Your task to perform on an android device: Go to network settings Image 0: 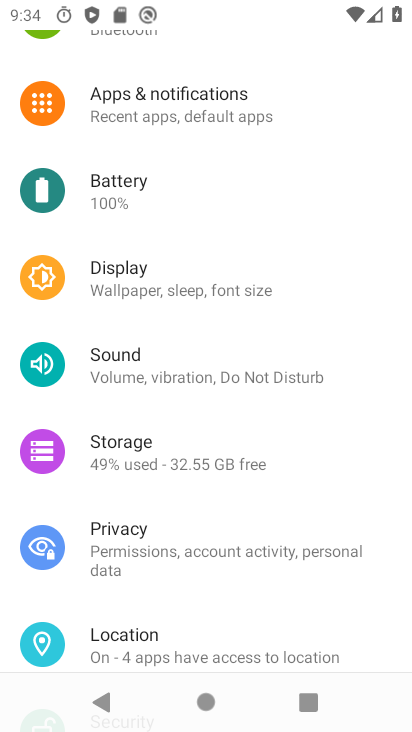
Step 0: drag from (203, 446) to (208, 640)
Your task to perform on an android device: Go to network settings Image 1: 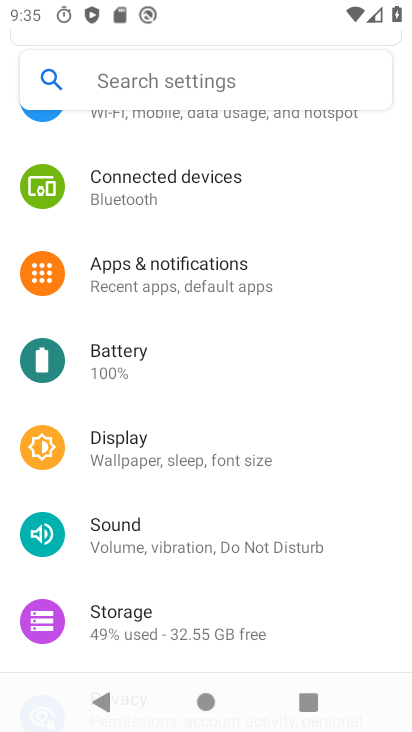
Step 1: drag from (225, 279) to (198, 671)
Your task to perform on an android device: Go to network settings Image 2: 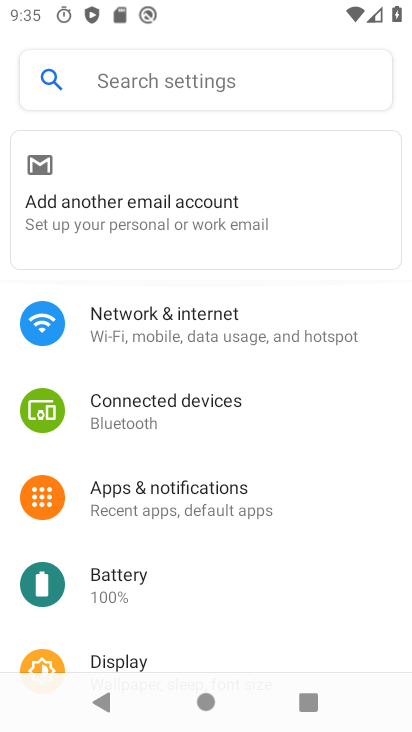
Step 2: drag from (167, 434) to (167, 685)
Your task to perform on an android device: Go to network settings Image 3: 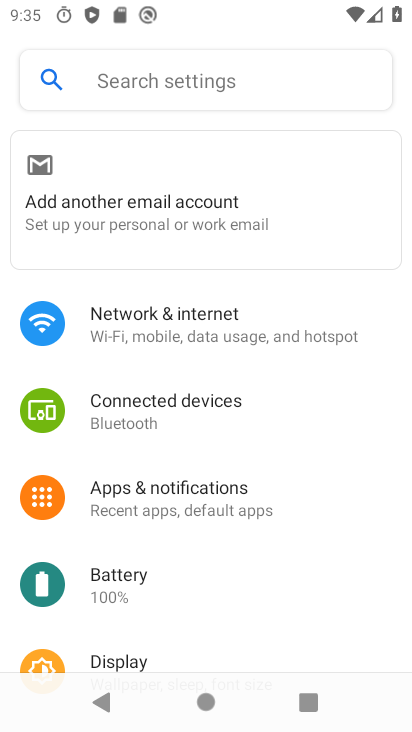
Step 3: click (203, 335)
Your task to perform on an android device: Go to network settings Image 4: 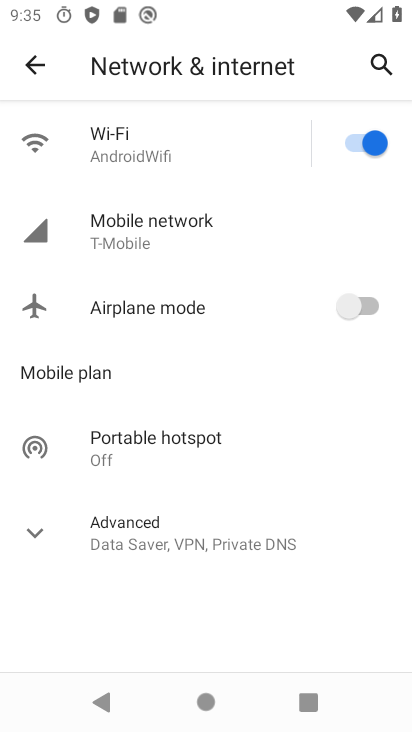
Step 4: click (182, 210)
Your task to perform on an android device: Go to network settings Image 5: 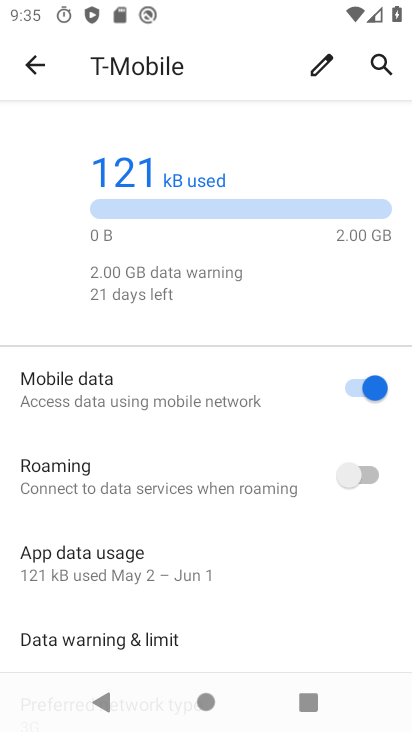
Step 5: task complete